Your task to perform on an android device: Look up the best rated bike seats on Target Image 0: 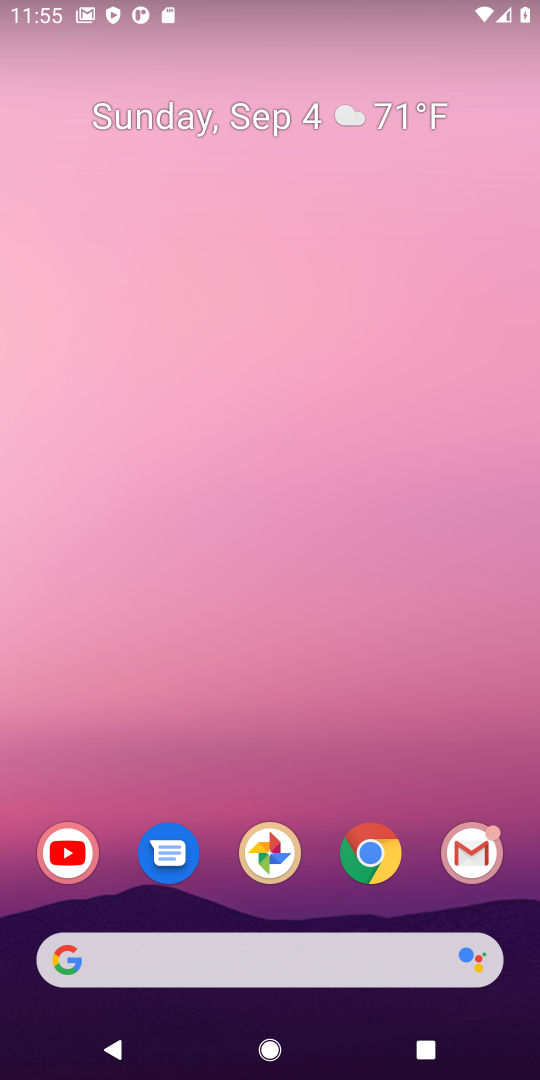
Step 0: click (372, 854)
Your task to perform on an android device: Look up the best rated bike seats on Target Image 1: 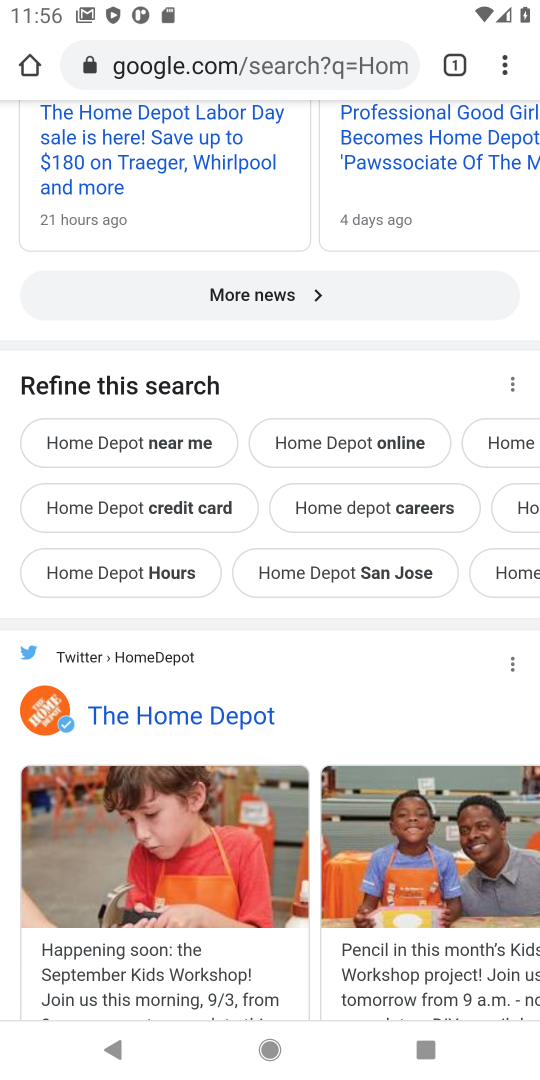
Step 1: click (296, 57)
Your task to perform on an android device: Look up the best rated bike seats on Target Image 2: 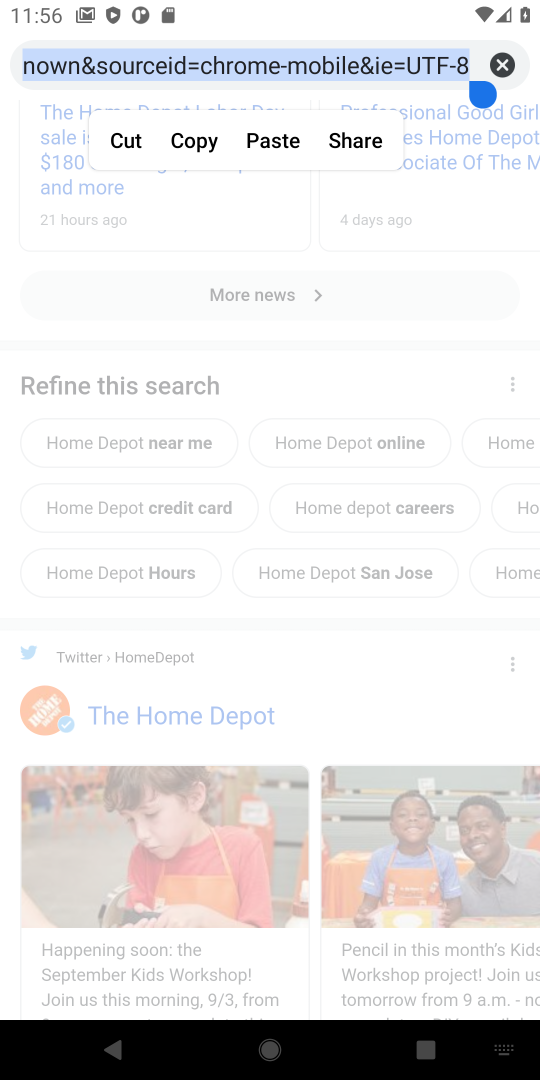
Step 2: click (504, 66)
Your task to perform on an android device: Look up the best rated bike seats on Target Image 3: 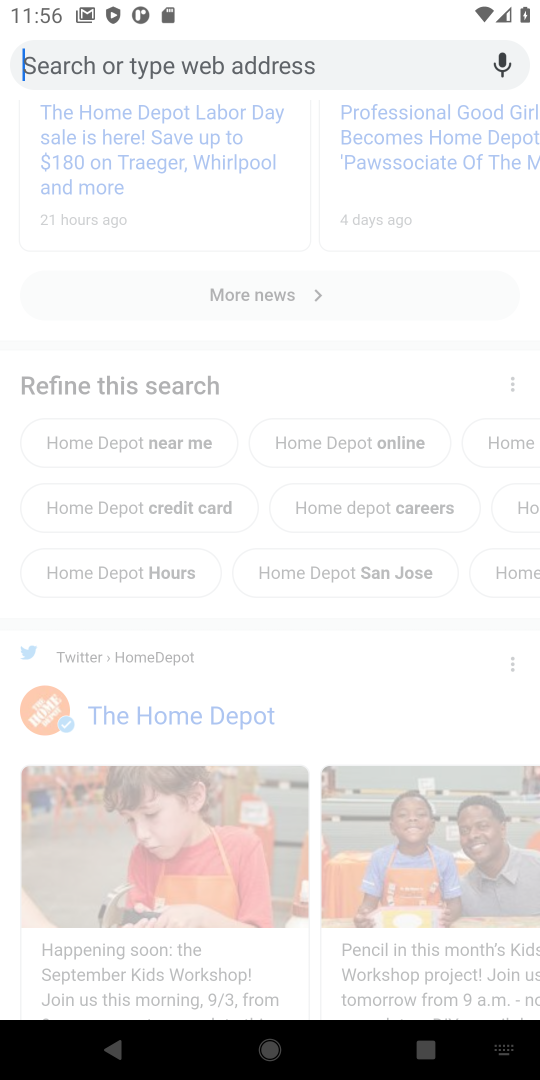
Step 3: type "Target"
Your task to perform on an android device: Look up the best rated bike seats on Target Image 4: 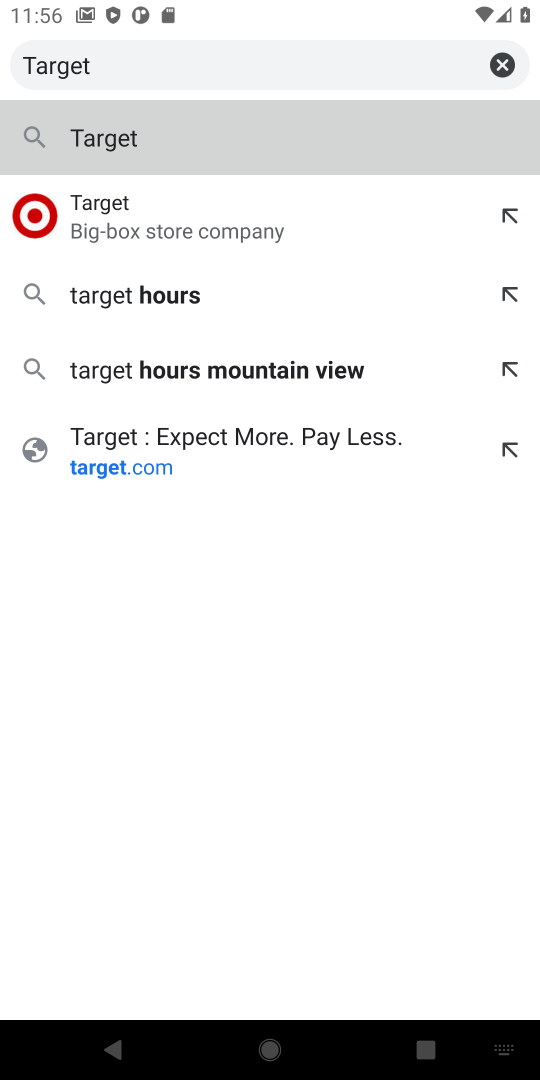
Step 4: press enter
Your task to perform on an android device: Look up the best rated bike seats on Target Image 5: 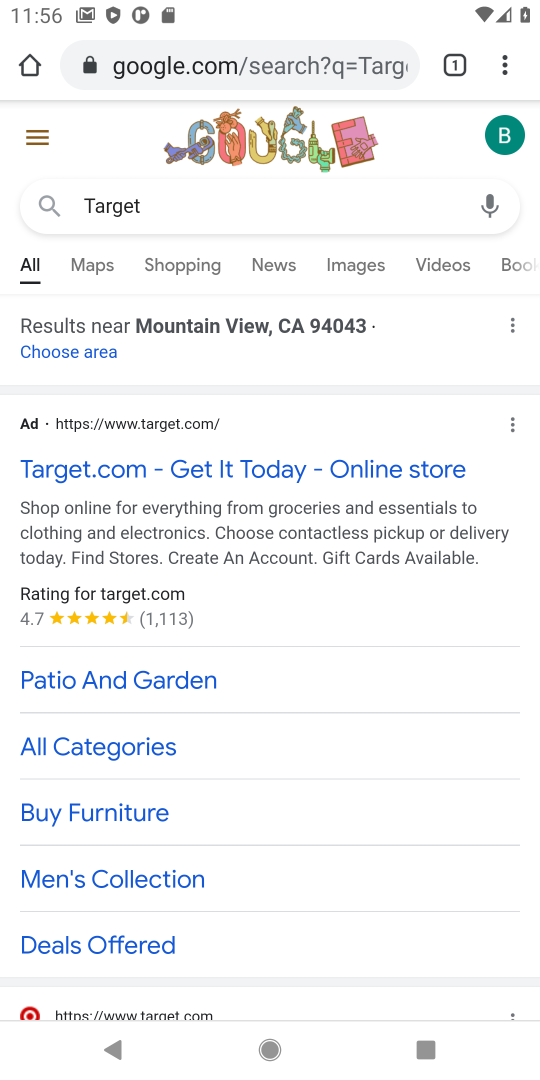
Step 5: drag from (236, 751) to (418, 331)
Your task to perform on an android device: Look up the best rated bike seats on Target Image 6: 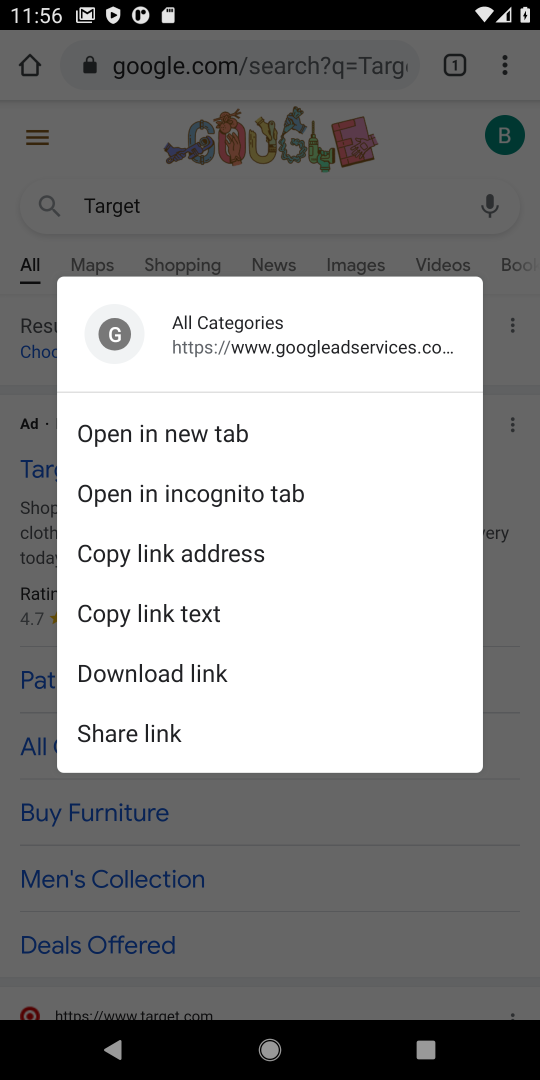
Step 6: click (509, 564)
Your task to perform on an android device: Look up the best rated bike seats on Target Image 7: 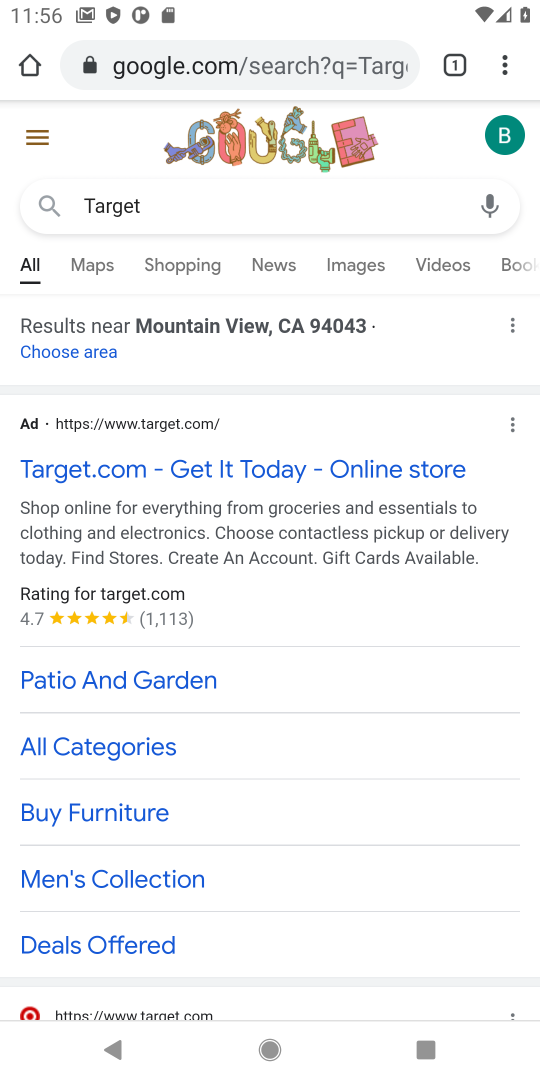
Step 7: drag from (317, 377) to (374, 263)
Your task to perform on an android device: Look up the best rated bike seats on Target Image 8: 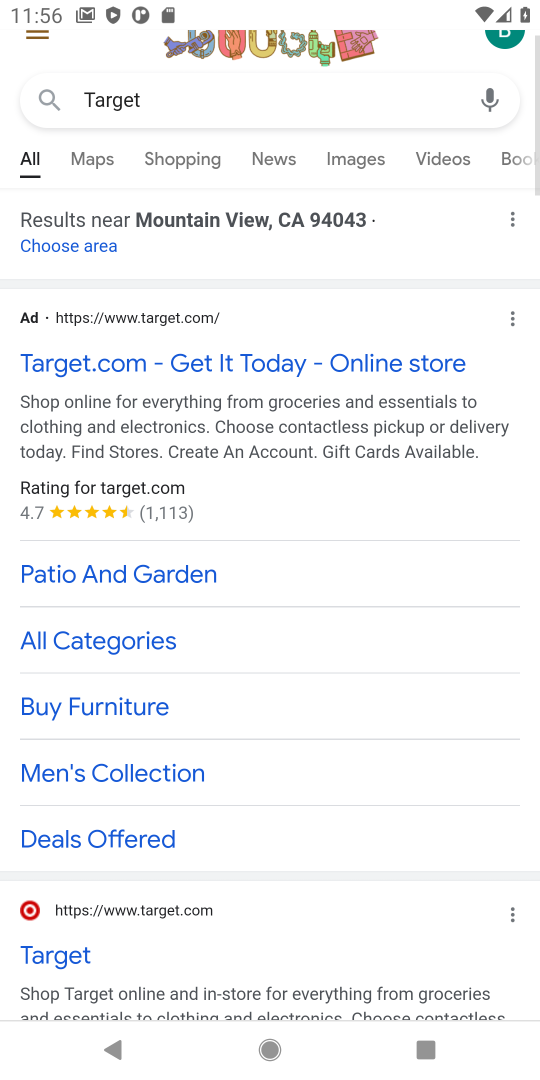
Step 8: click (55, 949)
Your task to perform on an android device: Look up the best rated bike seats on Target Image 9: 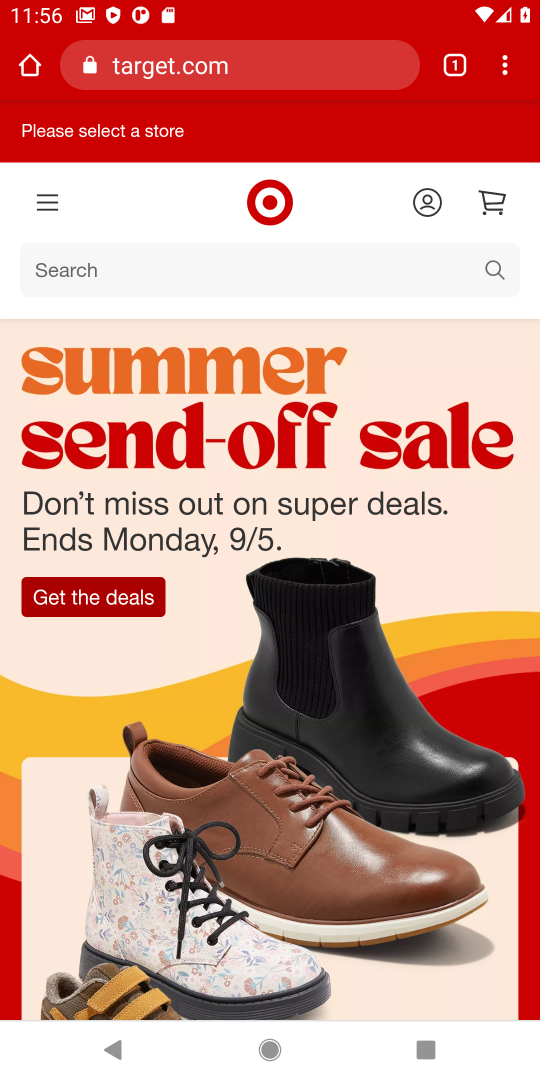
Step 9: click (156, 269)
Your task to perform on an android device: Look up the best rated bike seats on Target Image 10: 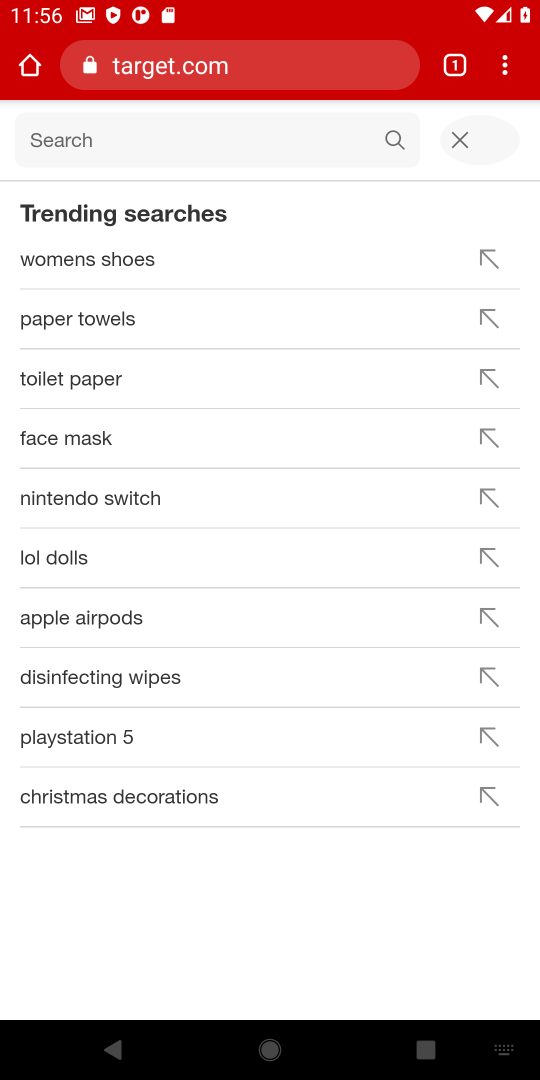
Step 10: click (50, 131)
Your task to perform on an android device: Look up the best rated bike seats on Target Image 11: 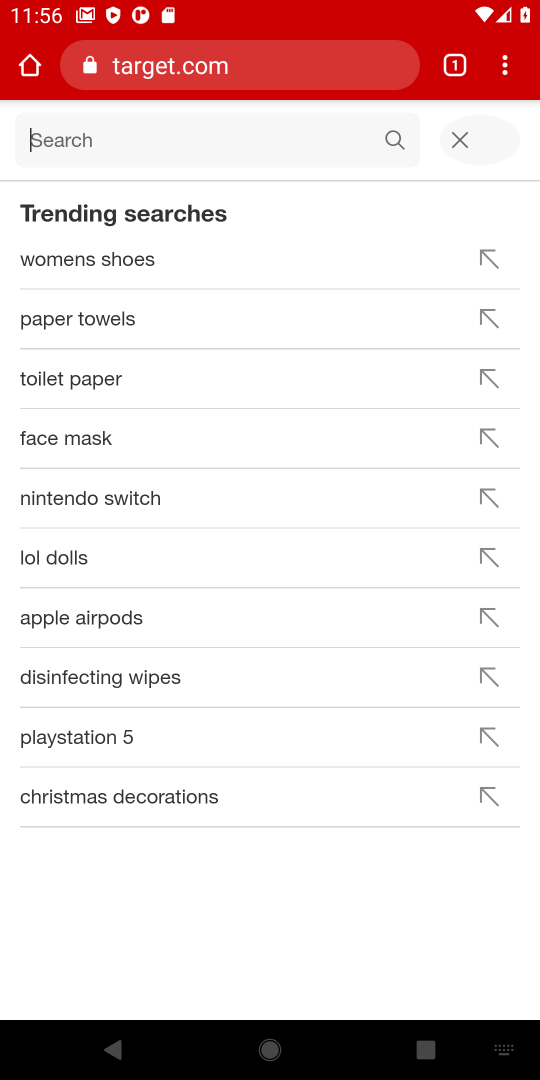
Step 11: type " bike seats"
Your task to perform on an android device: Look up the best rated bike seats on Target Image 12: 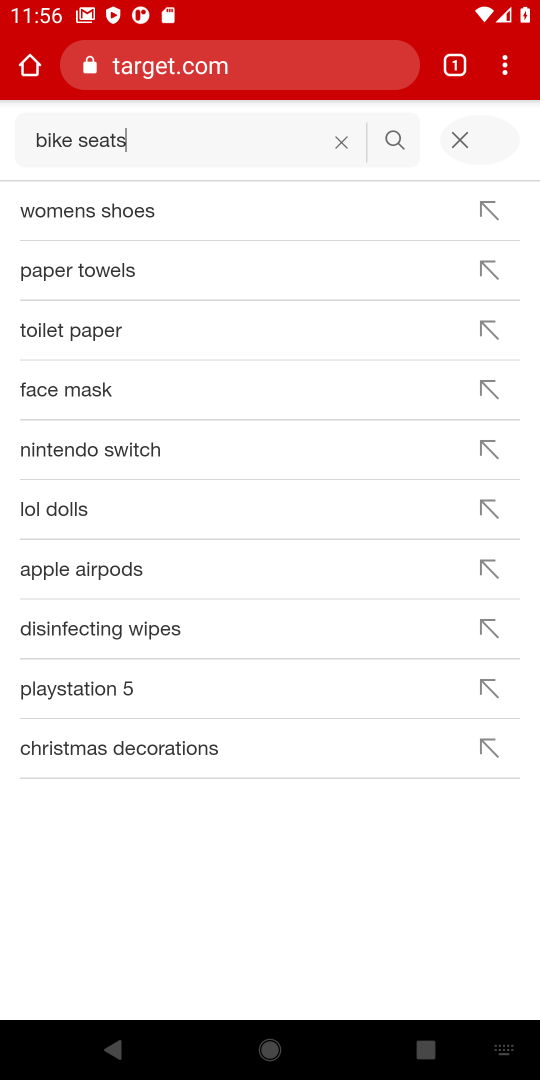
Step 12: press enter
Your task to perform on an android device: Look up the best rated bike seats on Target Image 13: 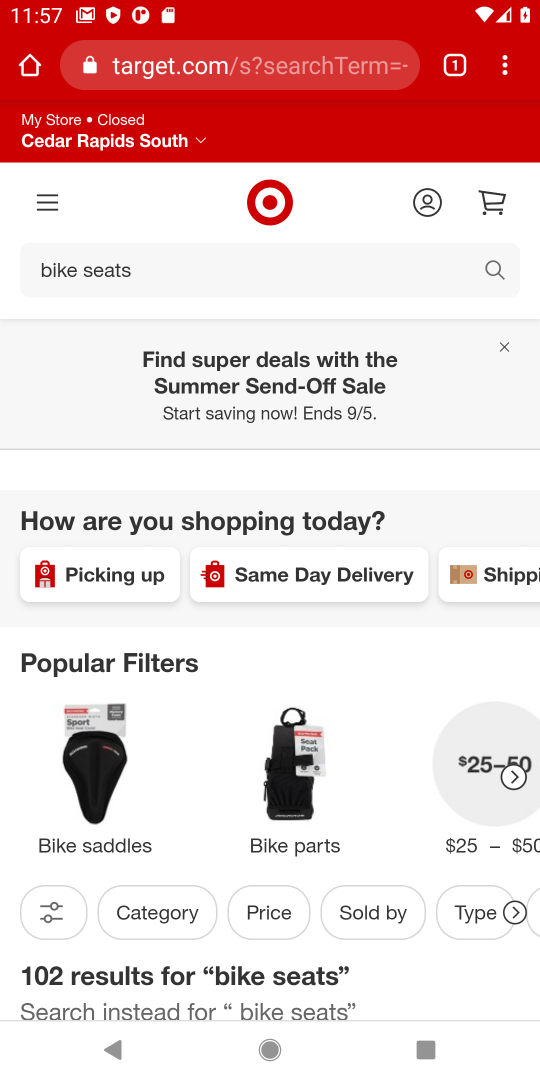
Step 13: task complete